Your task to perform on an android device: turn on bluetooth scan Image 0: 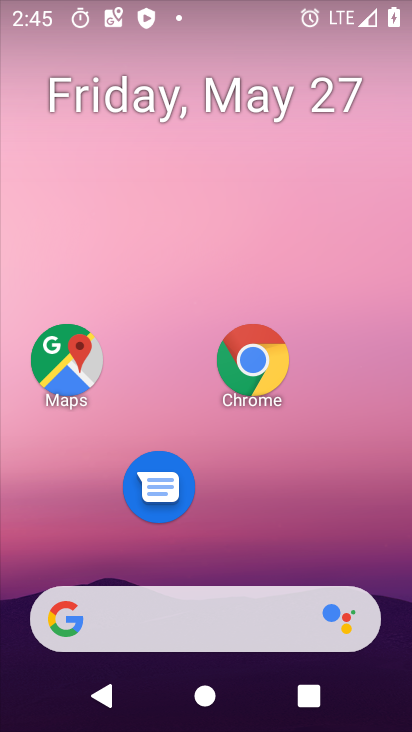
Step 0: drag from (264, 424) to (316, 53)
Your task to perform on an android device: turn on bluetooth scan Image 1: 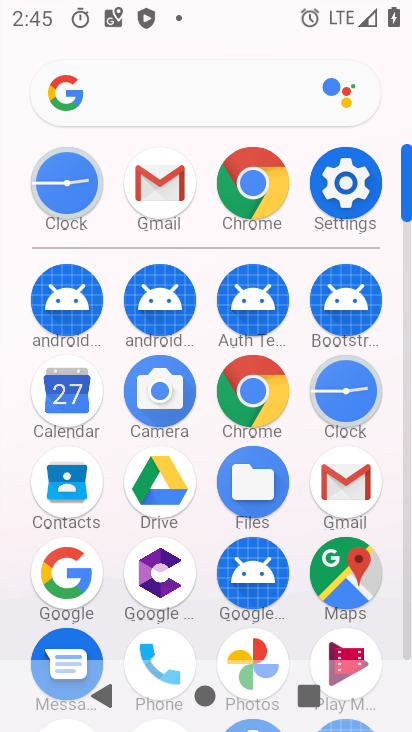
Step 1: click (347, 183)
Your task to perform on an android device: turn on bluetooth scan Image 2: 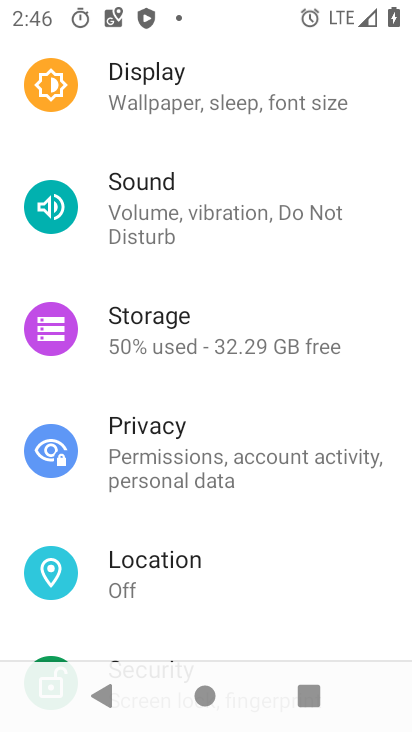
Step 2: click (172, 578)
Your task to perform on an android device: turn on bluetooth scan Image 3: 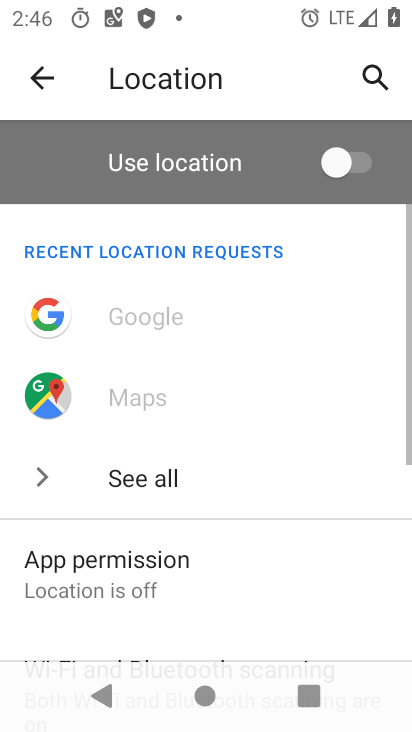
Step 3: drag from (255, 561) to (296, 230)
Your task to perform on an android device: turn on bluetooth scan Image 4: 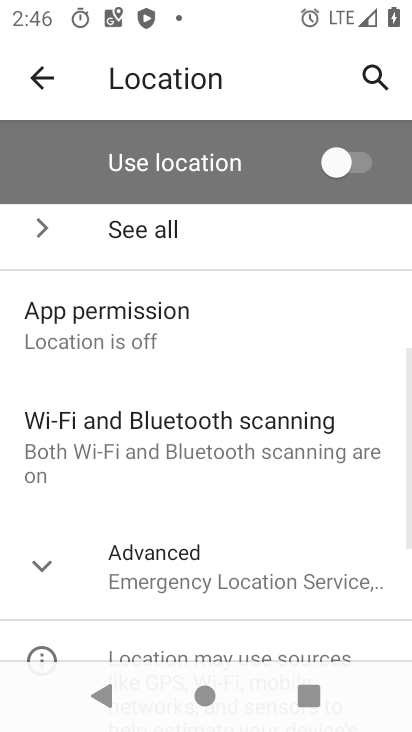
Step 4: click (178, 436)
Your task to perform on an android device: turn on bluetooth scan Image 5: 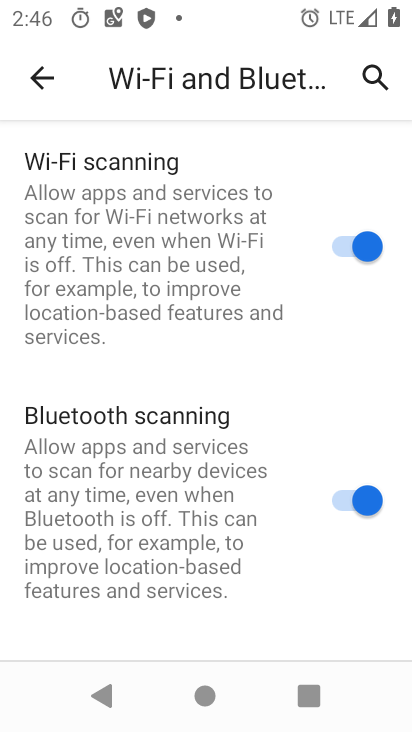
Step 5: task complete